Your task to perform on an android device: turn off priority inbox in the gmail app Image 0: 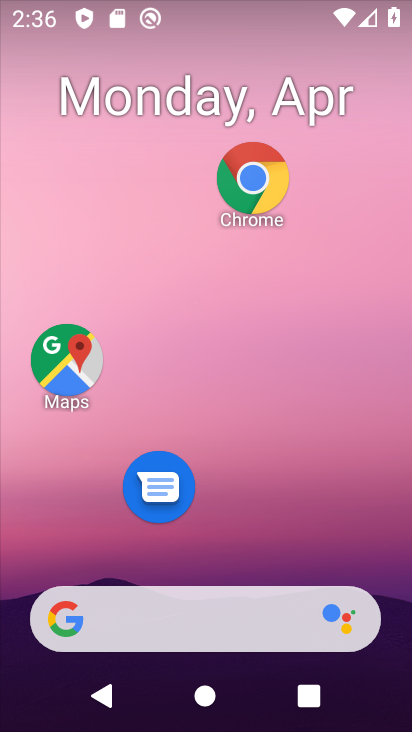
Step 0: drag from (234, 585) to (408, 94)
Your task to perform on an android device: turn off priority inbox in the gmail app Image 1: 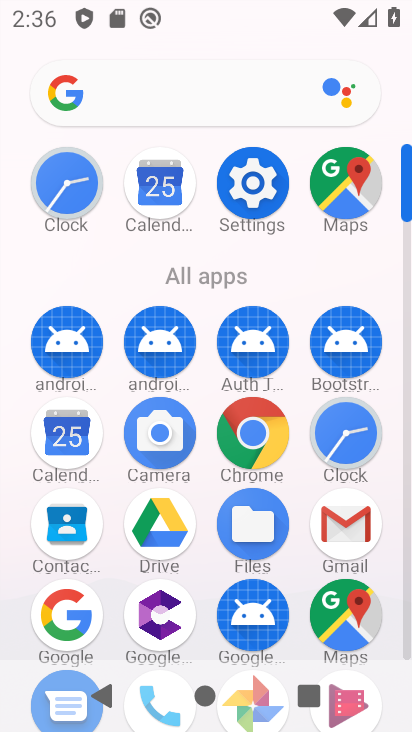
Step 1: click (358, 527)
Your task to perform on an android device: turn off priority inbox in the gmail app Image 2: 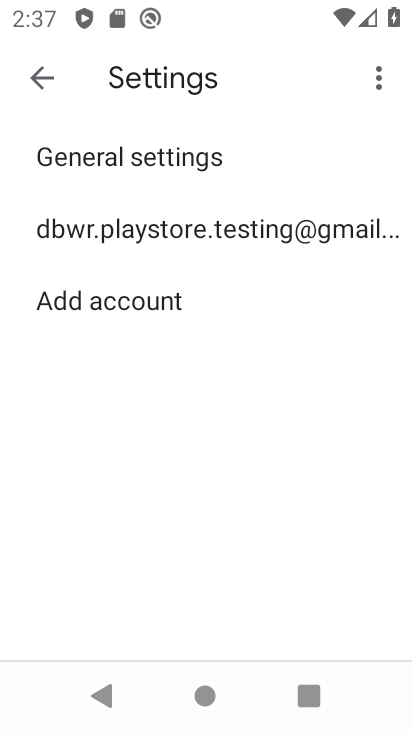
Step 2: click (191, 227)
Your task to perform on an android device: turn off priority inbox in the gmail app Image 3: 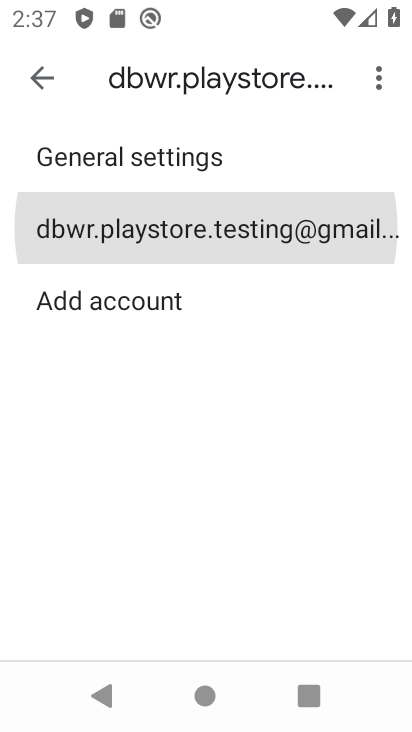
Step 3: click (191, 227)
Your task to perform on an android device: turn off priority inbox in the gmail app Image 4: 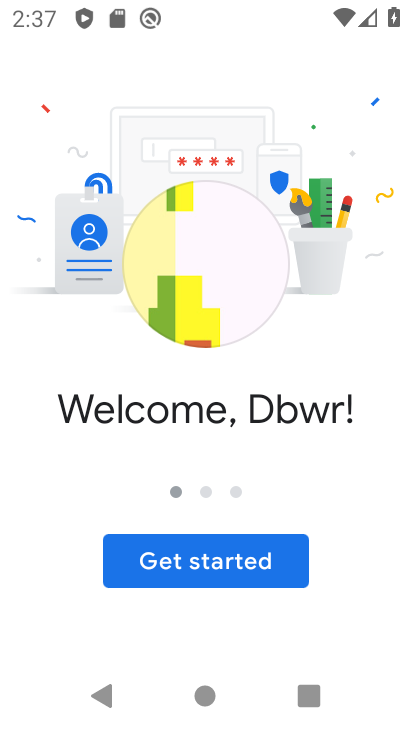
Step 4: press back button
Your task to perform on an android device: turn off priority inbox in the gmail app Image 5: 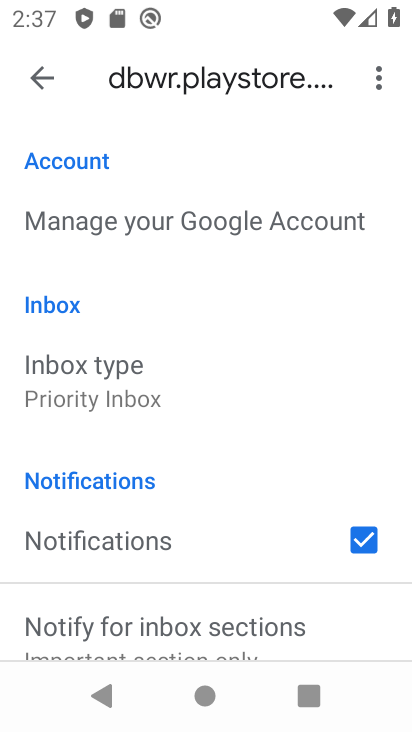
Step 5: click (134, 396)
Your task to perform on an android device: turn off priority inbox in the gmail app Image 6: 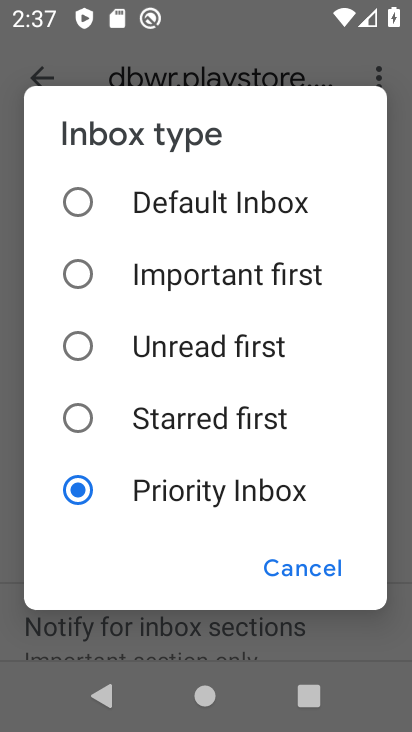
Step 6: task complete